Your task to perform on an android device: make emails show in primary in the gmail app Image 0: 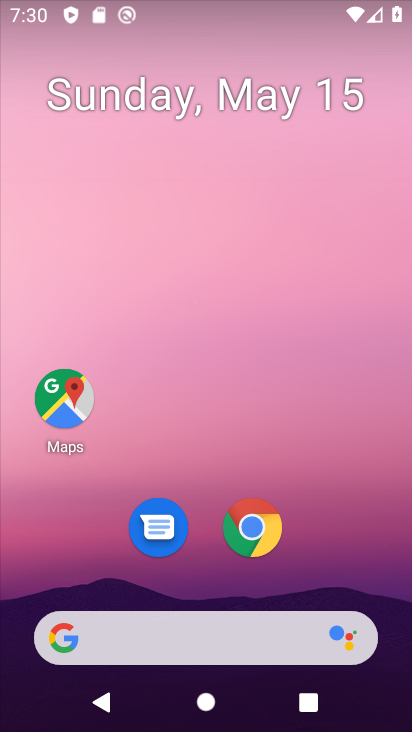
Step 0: drag from (215, 575) to (232, 187)
Your task to perform on an android device: make emails show in primary in the gmail app Image 1: 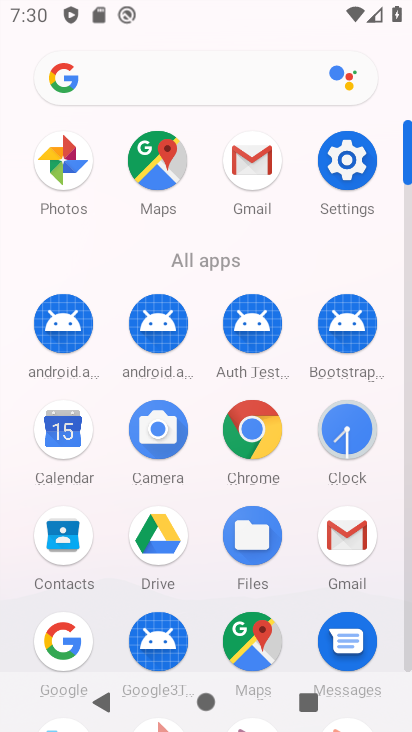
Step 1: click (363, 543)
Your task to perform on an android device: make emails show in primary in the gmail app Image 2: 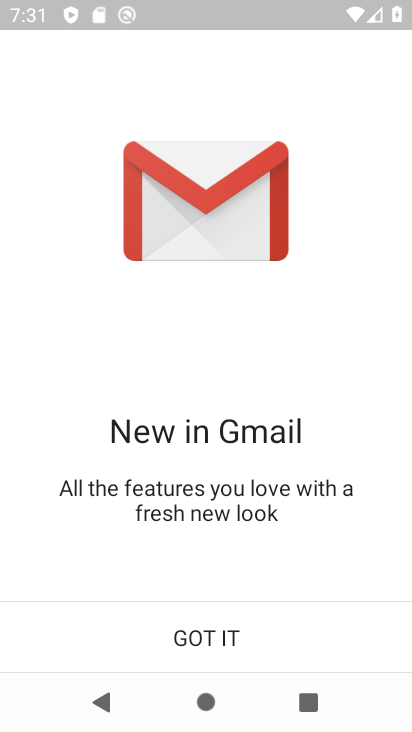
Step 2: click (226, 639)
Your task to perform on an android device: make emails show in primary in the gmail app Image 3: 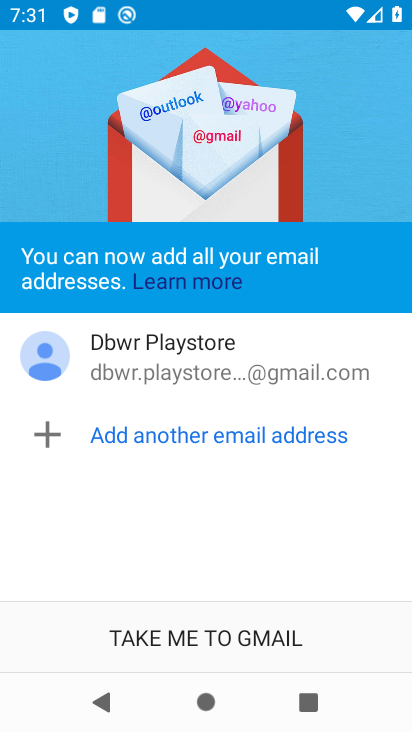
Step 3: click (226, 640)
Your task to perform on an android device: make emails show in primary in the gmail app Image 4: 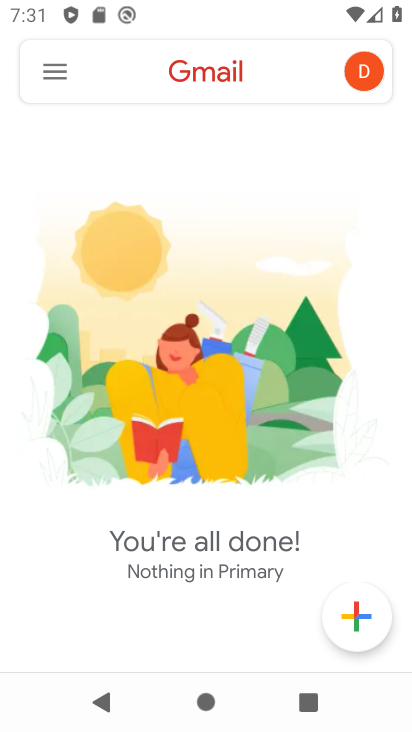
Step 4: click (41, 71)
Your task to perform on an android device: make emails show in primary in the gmail app Image 5: 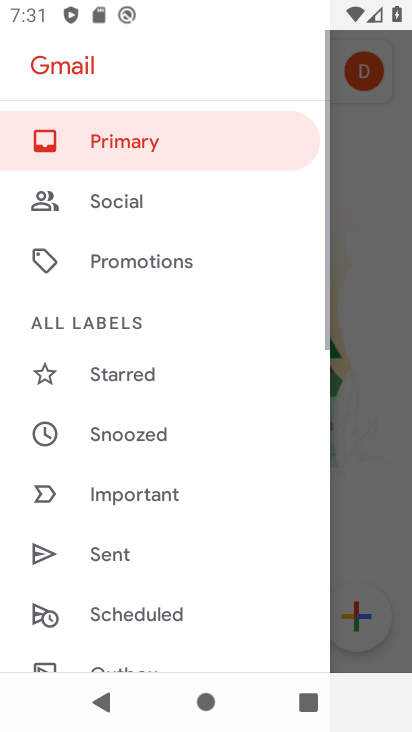
Step 5: drag from (131, 564) to (207, 104)
Your task to perform on an android device: make emails show in primary in the gmail app Image 6: 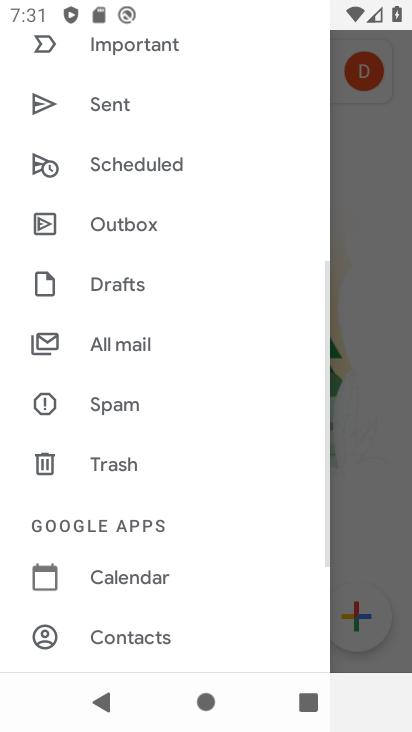
Step 6: drag from (161, 614) to (186, 204)
Your task to perform on an android device: make emails show in primary in the gmail app Image 7: 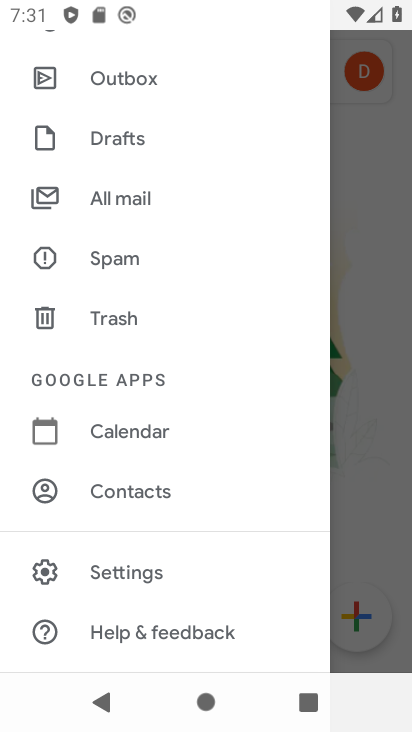
Step 7: click (122, 582)
Your task to perform on an android device: make emails show in primary in the gmail app Image 8: 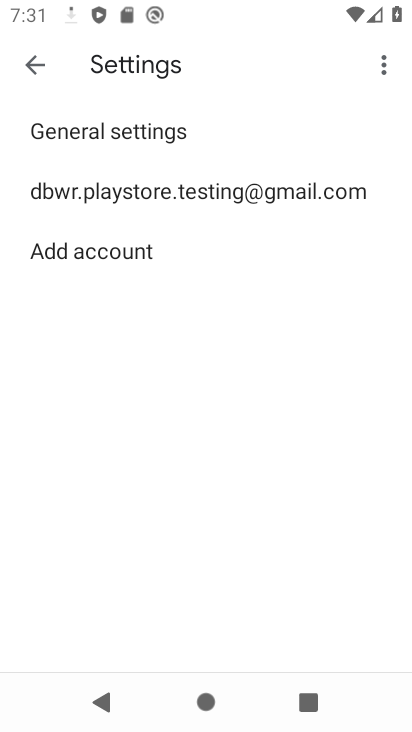
Step 8: click (124, 207)
Your task to perform on an android device: make emails show in primary in the gmail app Image 9: 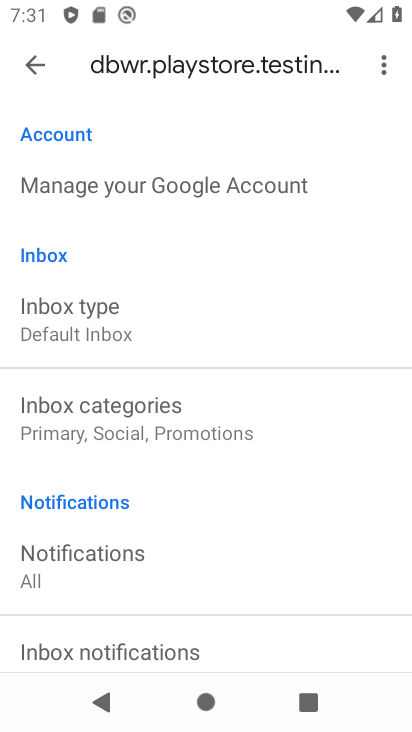
Step 9: click (85, 329)
Your task to perform on an android device: make emails show in primary in the gmail app Image 10: 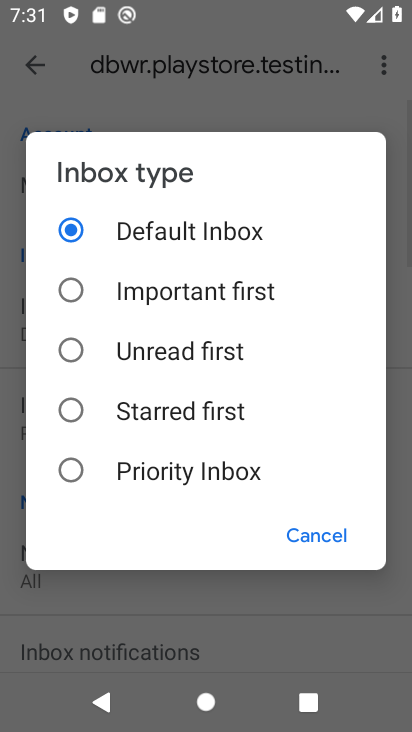
Step 10: click (157, 251)
Your task to perform on an android device: make emails show in primary in the gmail app Image 11: 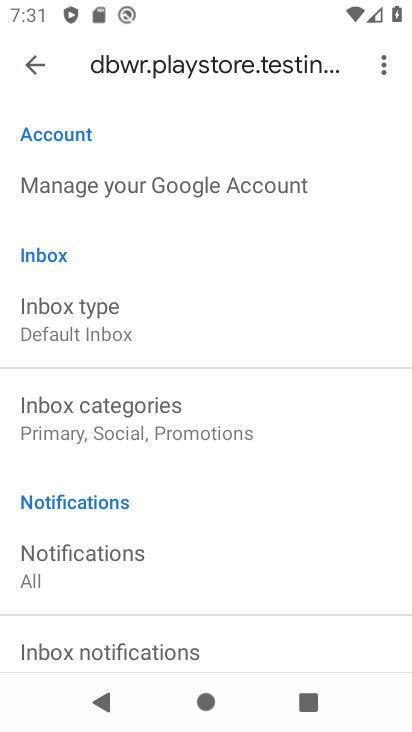
Step 11: click (120, 422)
Your task to perform on an android device: make emails show in primary in the gmail app Image 12: 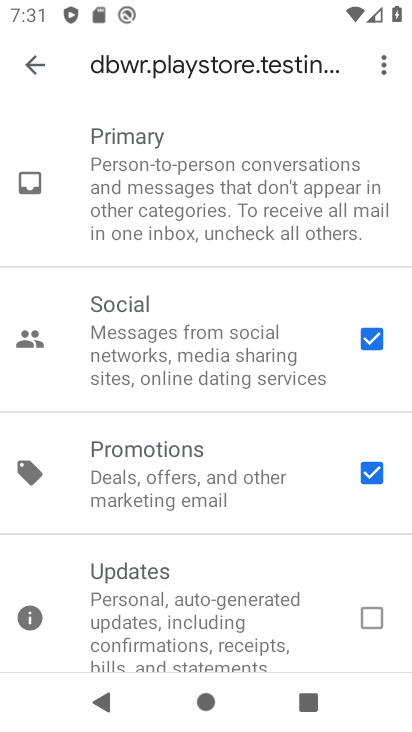
Step 12: click (302, 461)
Your task to perform on an android device: make emails show in primary in the gmail app Image 13: 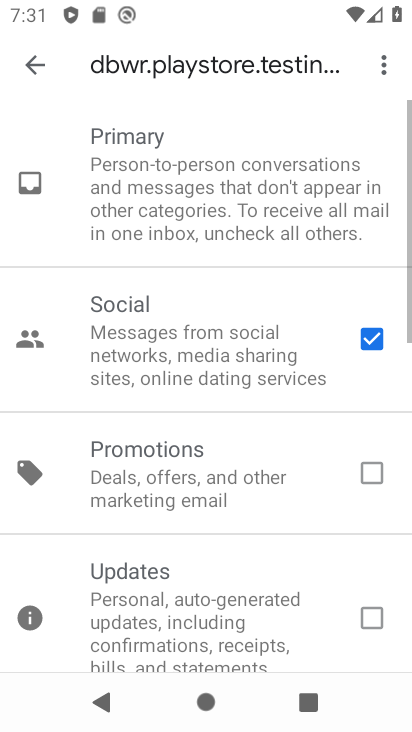
Step 13: click (318, 342)
Your task to perform on an android device: make emails show in primary in the gmail app Image 14: 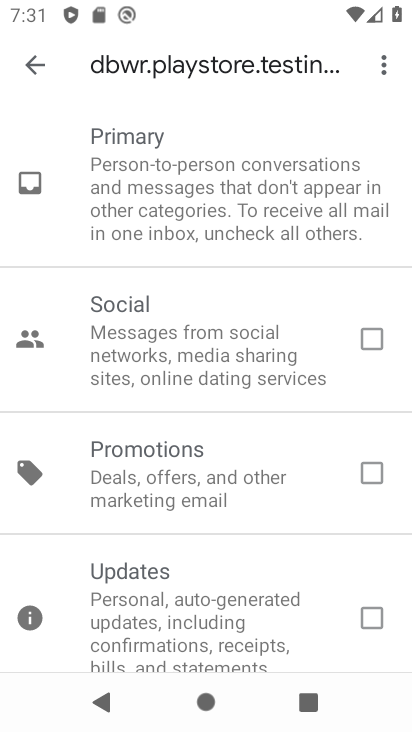
Step 14: task complete